Your task to perform on an android device: move a message to another label in the gmail app Image 0: 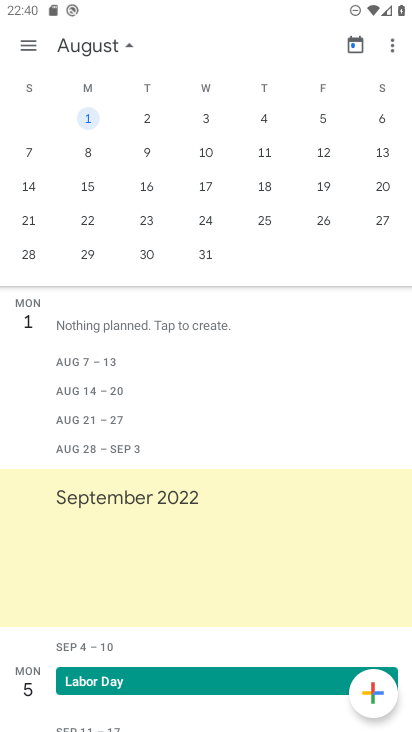
Step 0: press home button
Your task to perform on an android device: move a message to another label in the gmail app Image 1: 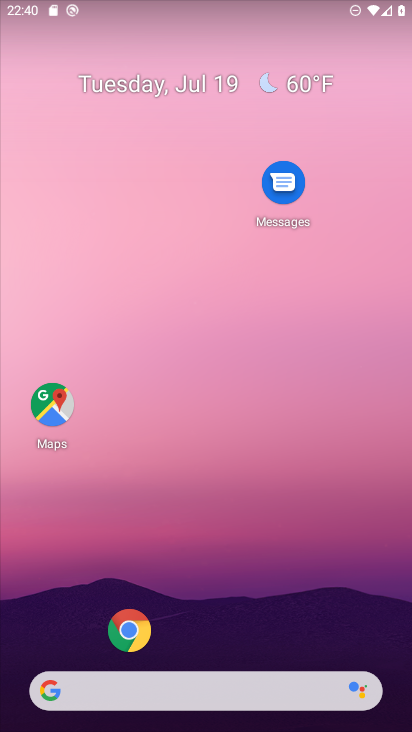
Step 1: drag from (38, 693) to (390, 35)
Your task to perform on an android device: move a message to another label in the gmail app Image 2: 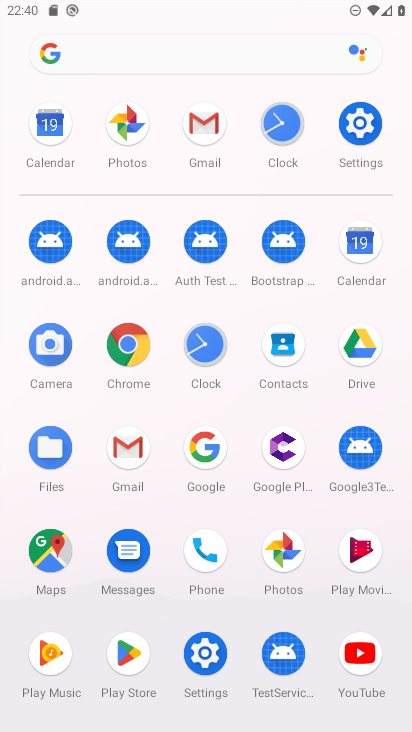
Step 2: click (134, 459)
Your task to perform on an android device: move a message to another label in the gmail app Image 3: 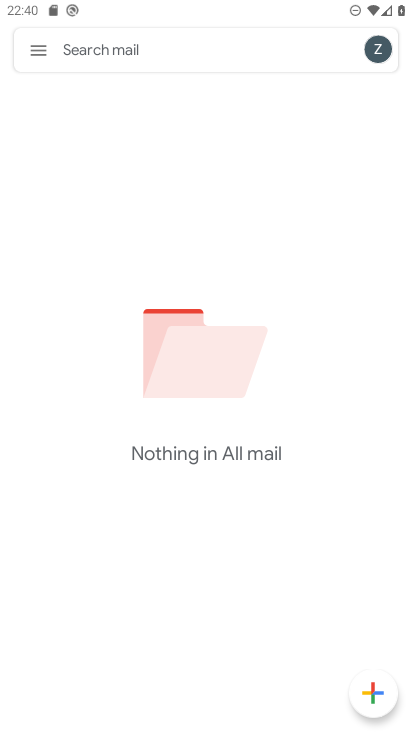
Step 3: click (46, 45)
Your task to perform on an android device: move a message to another label in the gmail app Image 4: 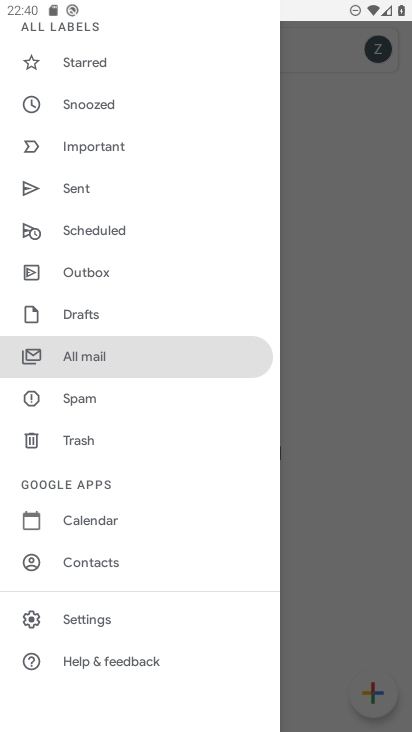
Step 4: drag from (160, 72) to (160, 487)
Your task to perform on an android device: move a message to another label in the gmail app Image 5: 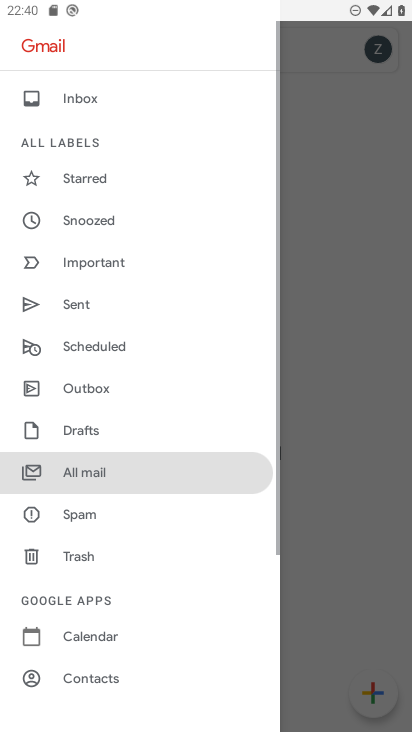
Step 5: click (87, 98)
Your task to perform on an android device: move a message to another label in the gmail app Image 6: 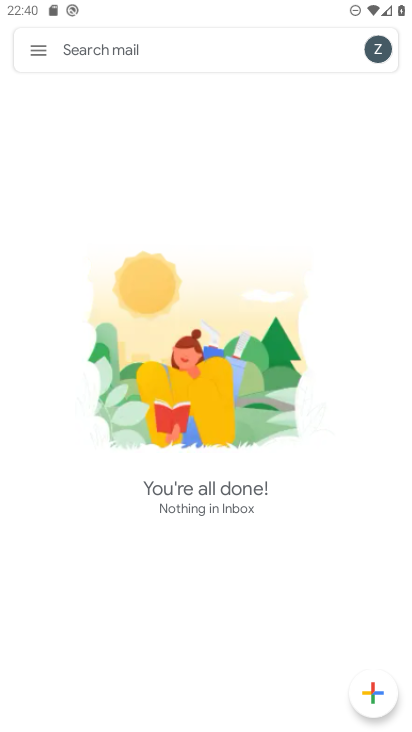
Step 6: task complete